Your task to perform on an android device: Open privacy settings Image 0: 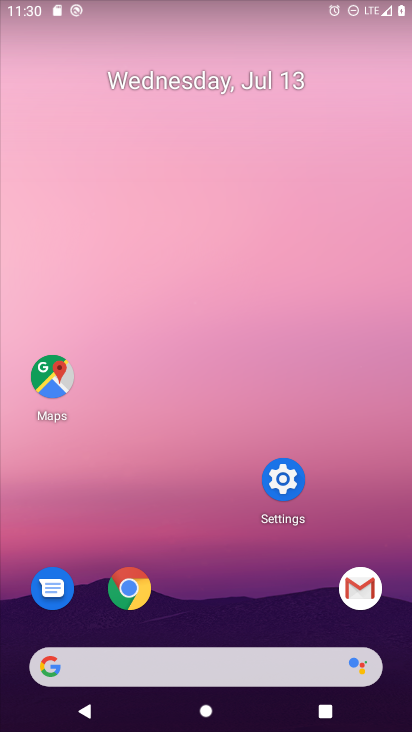
Step 0: press home button
Your task to perform on an android device: Open privacy settings Image 1: 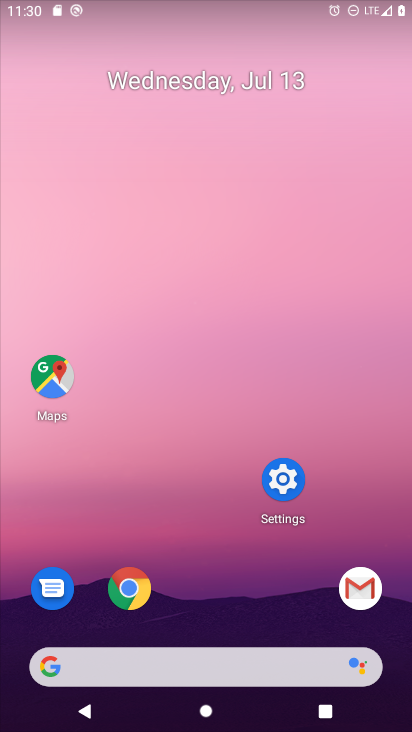
Step 1: click (278, 472)
Your task to perform on an android device: Open privacy settings Image 2: 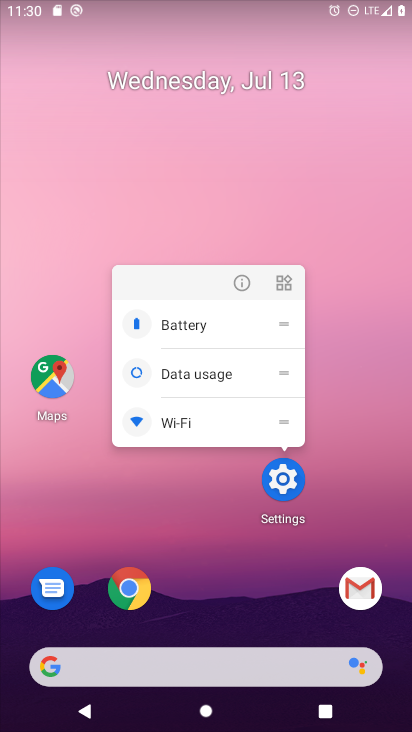
Step 2: click (286, 493)
Your task to perform on an android device: Open privacy settings Image 3: 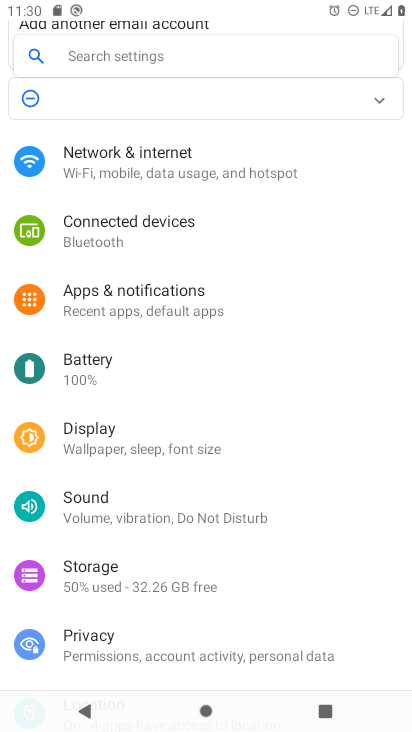
Step 3: click (89, 636)
Your task to perform on an android device: Open privacy settings Image 4: 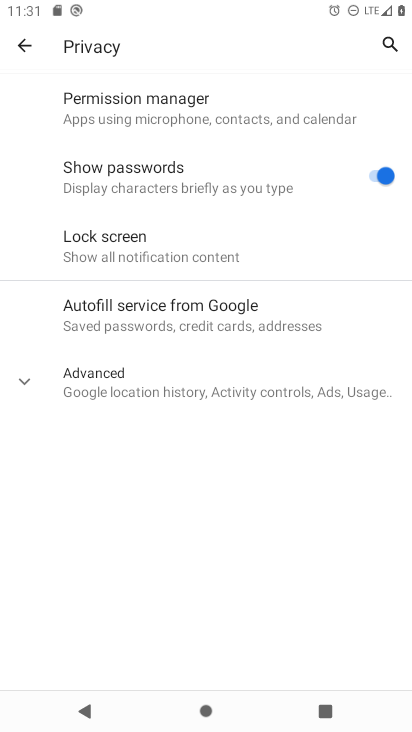
Step 4: task complete